Your task to perform on an android device: Is it going to rain this weekend? Image 0: 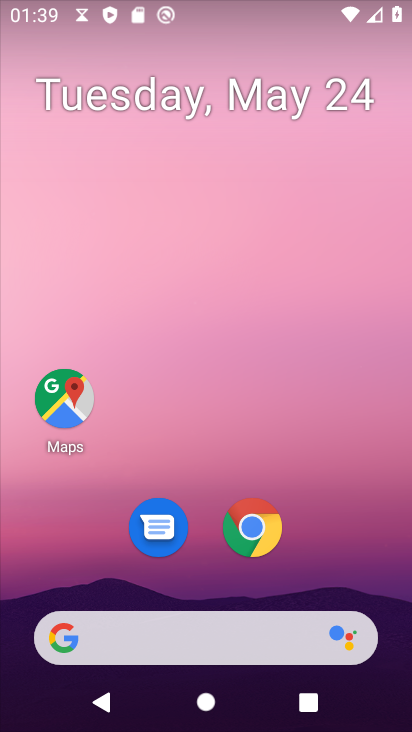
Step 0: click (66, 640)
Your task to perform on an android device: Is it going to rain this weekend? Image 1: 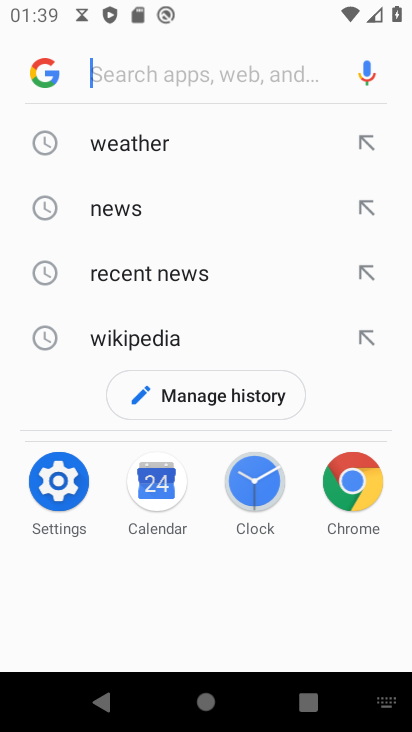
Step 1: click (150, 140)
Your task to perform on an android device: Is it going to rain this weekend? Image 2: 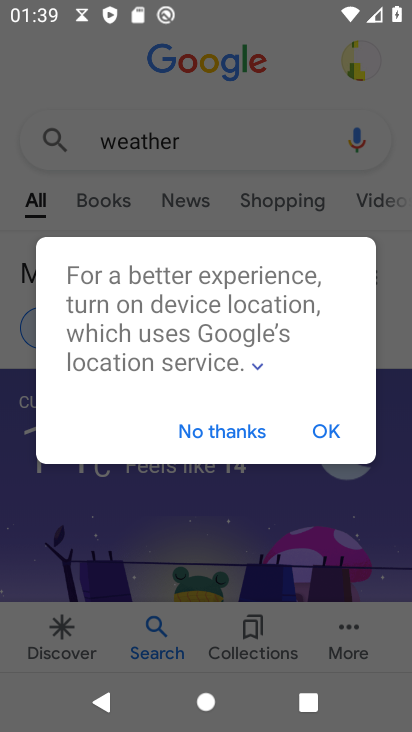
Step 2: click (328, 432)
Your task to perform on an android device: Is it going to rain this weekend? Image 3: 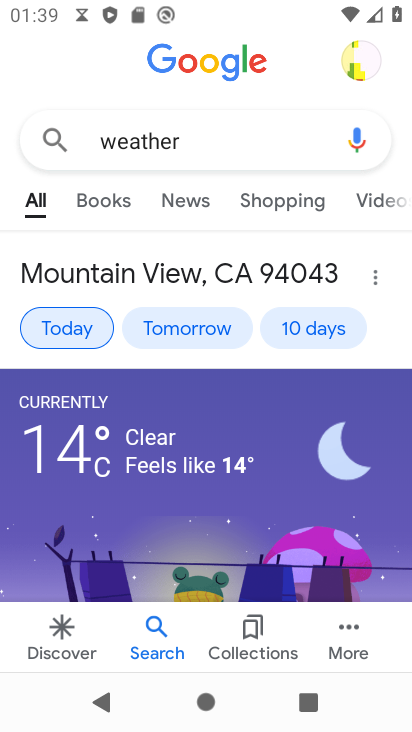
Step 3: click (336, 323)
Your task to perform on an android device: Is it going to rain this weekend? Image 4: 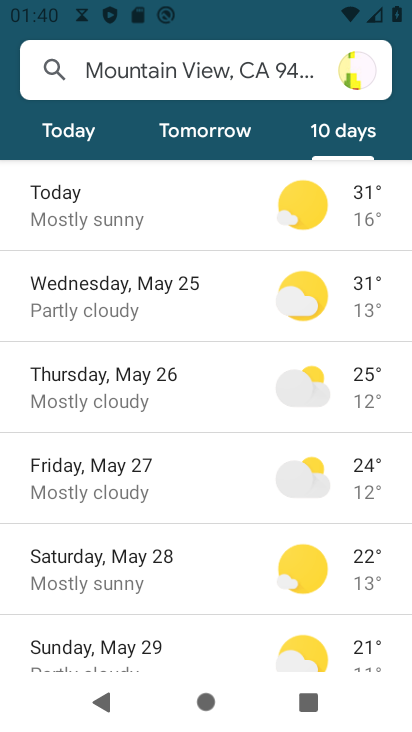
Step 4: click (142, 552)
Your task to perform on an android device: Is it going to rain this weekend? Image 5: 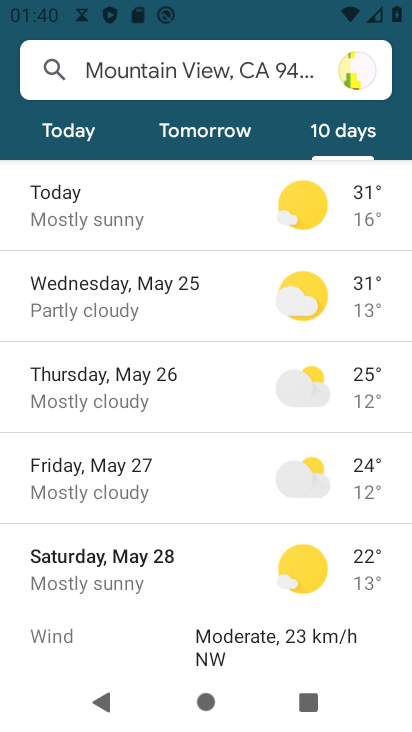
Step 5: task complete